Your task to perform on an android device: star an email in the gmail app Image 0: 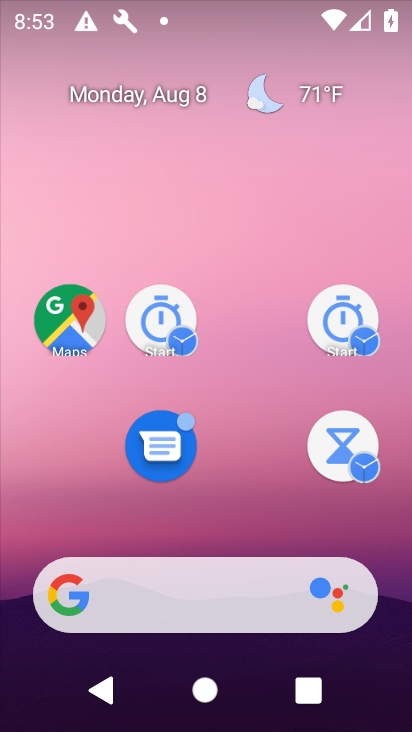
Step 0: drag from (186, 449) to (163, 240)
Your task to perform on an android device: star an email in the gmail app Image 1: 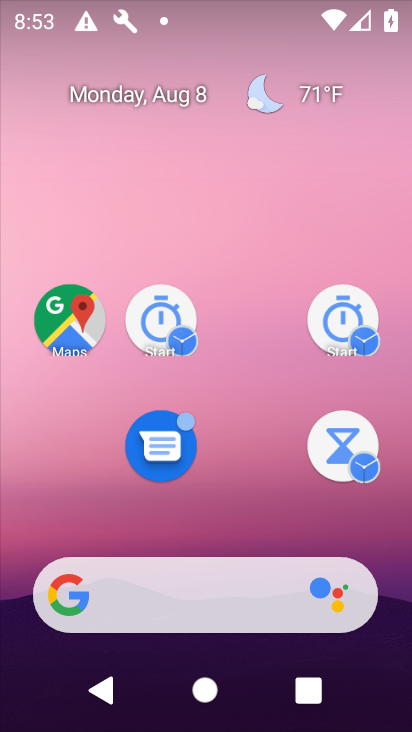
Step 1: drag from (263, 645) to (260, 281)
Your task to perform on an android device: star an email in the gmail app Image 2: 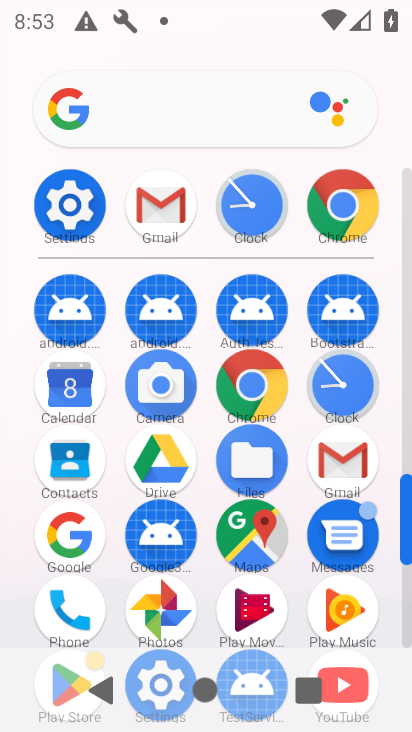
Step 2: click (324, 454)
Your task to perform on an android device: star an email in the gmail app Image 3: 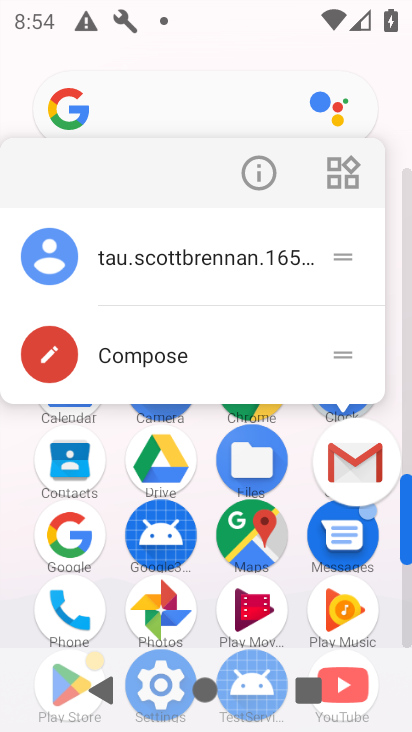
Step 3: click (340, 456)
Your task to perform on an android device: star an email in the gmail app Image 4: 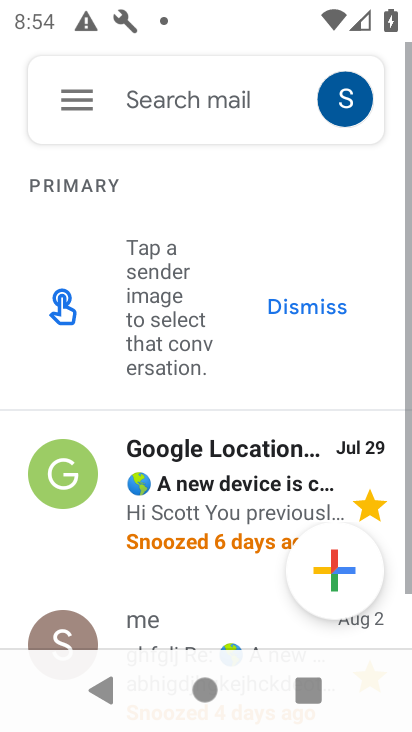
Step 4: drag from (200, 533) to (173, 268)
Your task to perform on an android device: star an email in the gmail app Image 5: 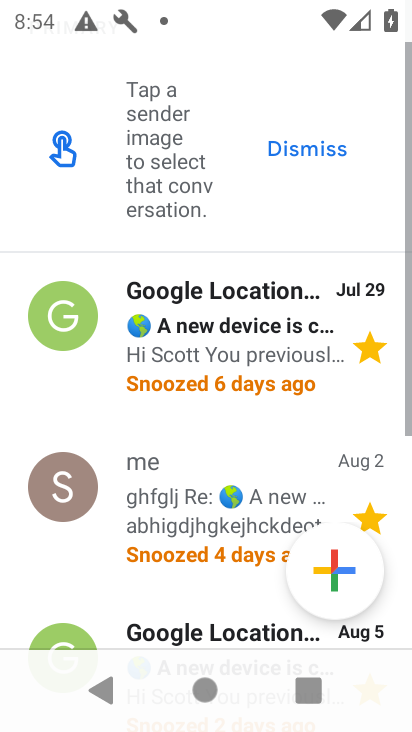
Step 5: click (183, 386)
Your task to perform on an android device: star an email in the gmail app Image 6: 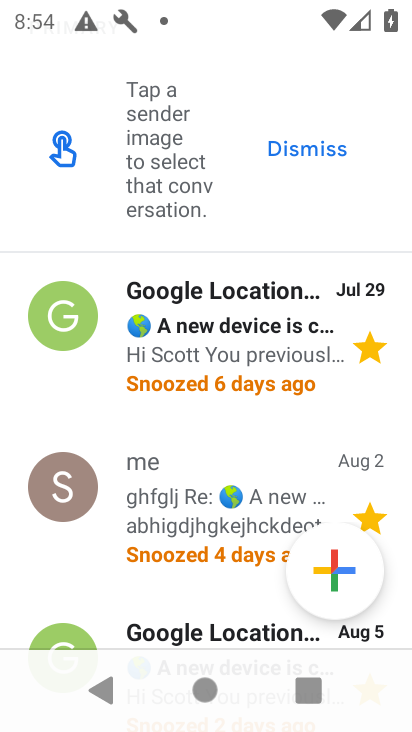
Step 6: drag from (249, 543) to (249, 449)
Your task to perform on an android device: star an email in the gmail app Image 7: 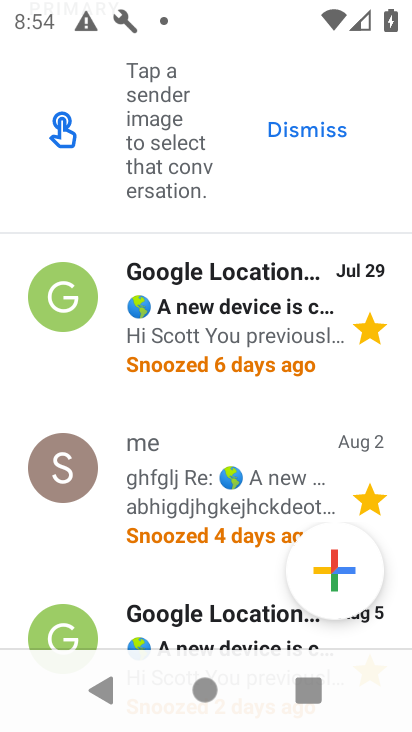
Step 7: click (176, 248)
Your task to perform on an android device: star an email in the gmail app Image 8: 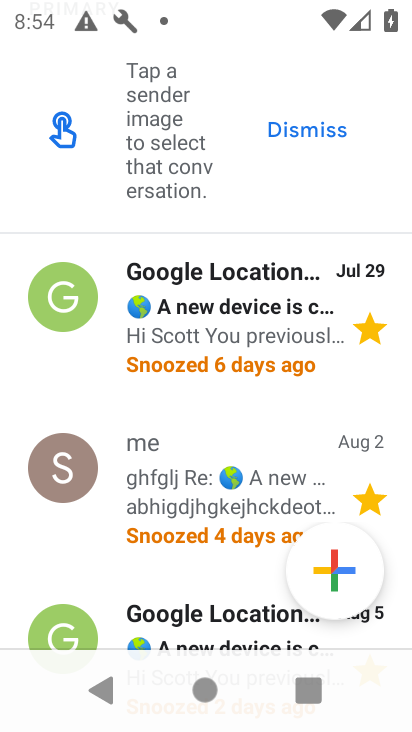
Step 8: drag from (212, 419) to (285, 161)
Your task to perform on an android device: star an email in the gmail app Image 9: 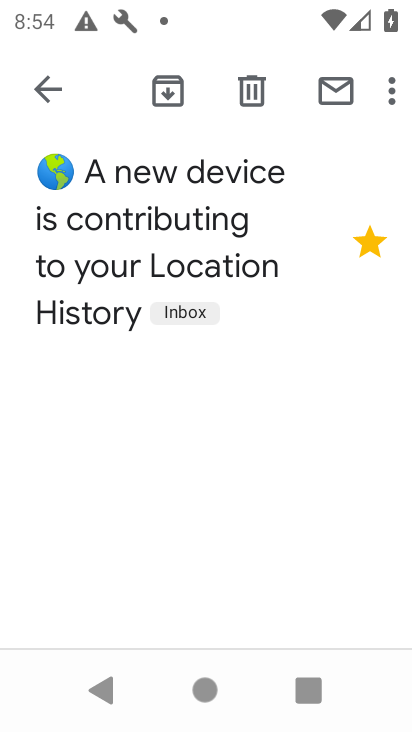
Step 9: drag from (242, 493) to (228, 320)
Your task to perform on an android device: star an email in the gmail app Image 10: 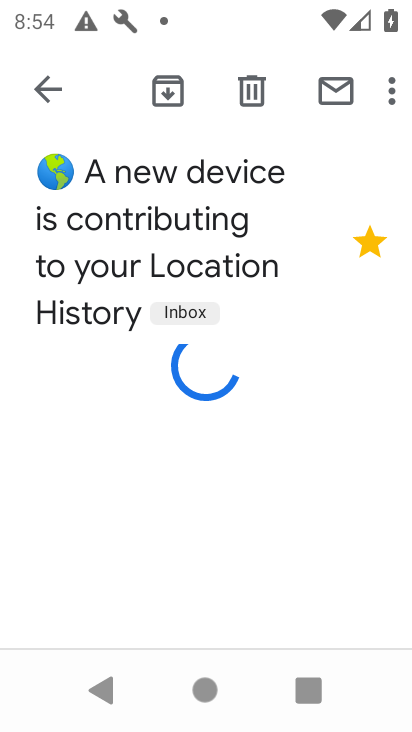
Step 10: click (215, 525)
Your task to perform on an android device: star an email in the gmail app Image 11: 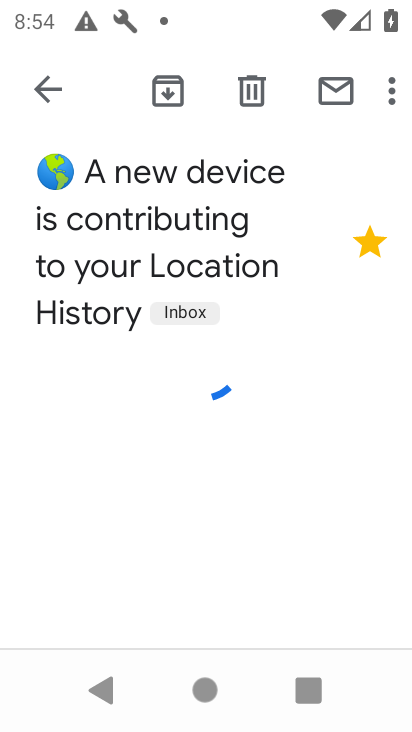
Step 11: click (54, 81)
Your task to perform on an android device: star an email in the gmail app Image 12: 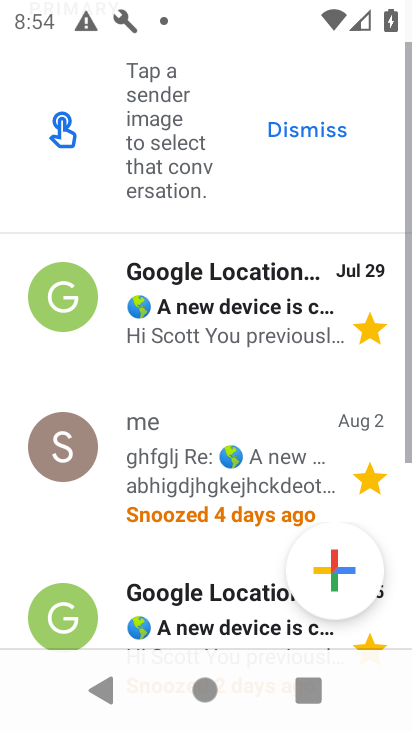
Step 12: drag from (200, 478) to (200, 240)
Your task to perform on an android device: star an email in the gmail app Image 13: 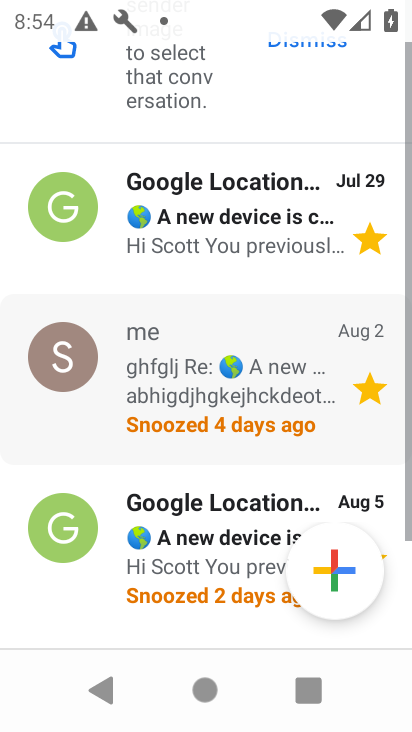
Step 13: click (204, 283)
Your task to perform on an android device: star an email in the gmail app Image 14: 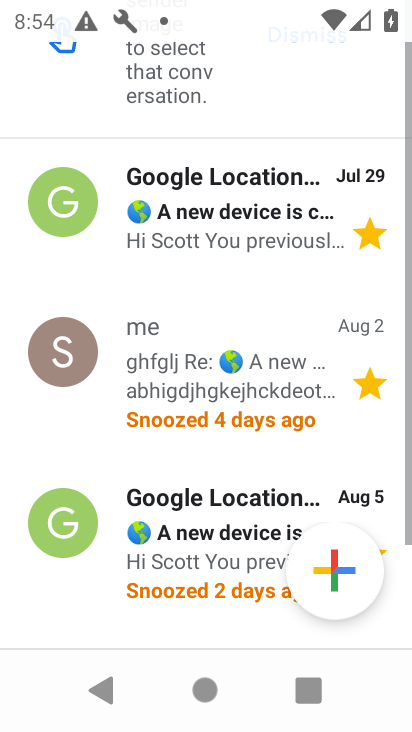
Step 14: task complete